Your task to perform on an android device: Show the shopping cart on ebay.com. Add "bose soundlink" to the cart on ebay.com, then select checkout. Image 0: 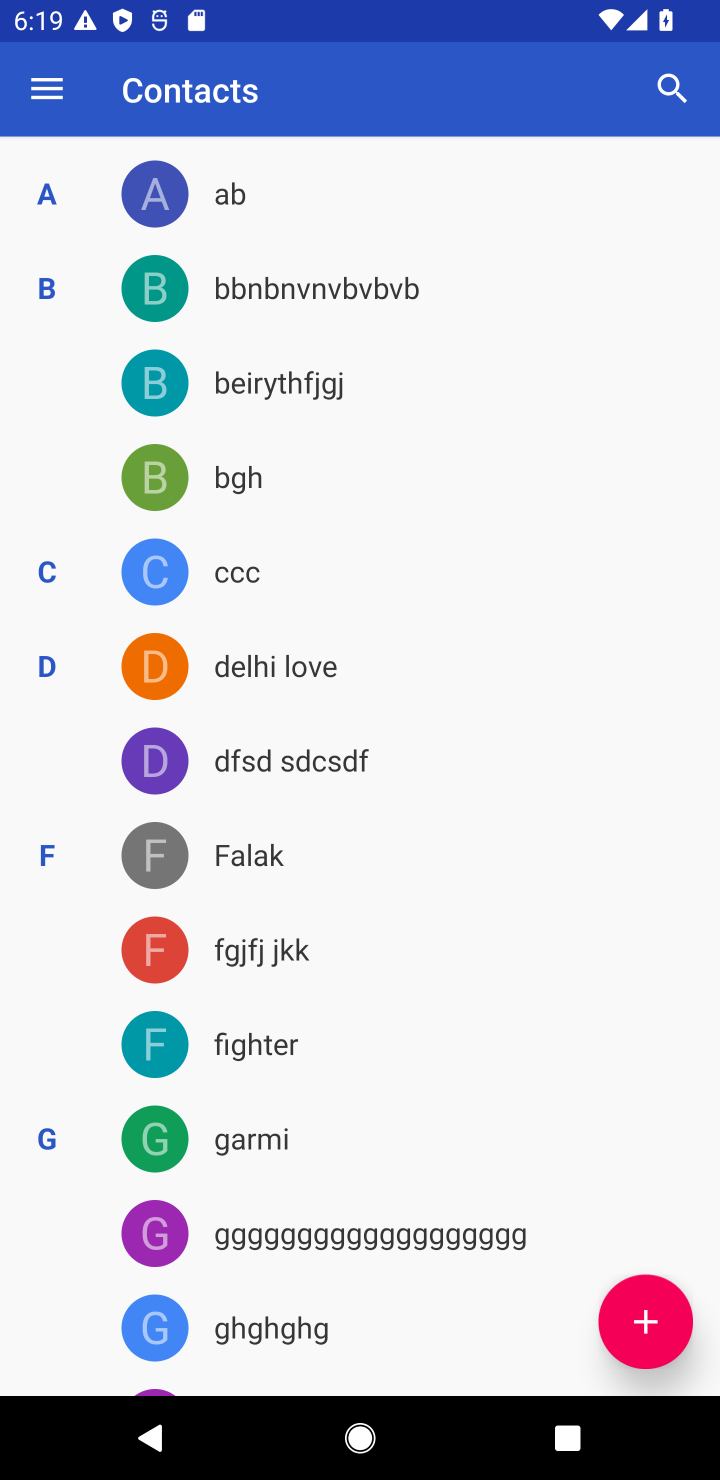
Step 0: press home button
Your task to perform on an android device: Show the shopping cart on ebay.com. Add "bose soundlink" to the cart on ebay.com, then select checkout. Image 1: 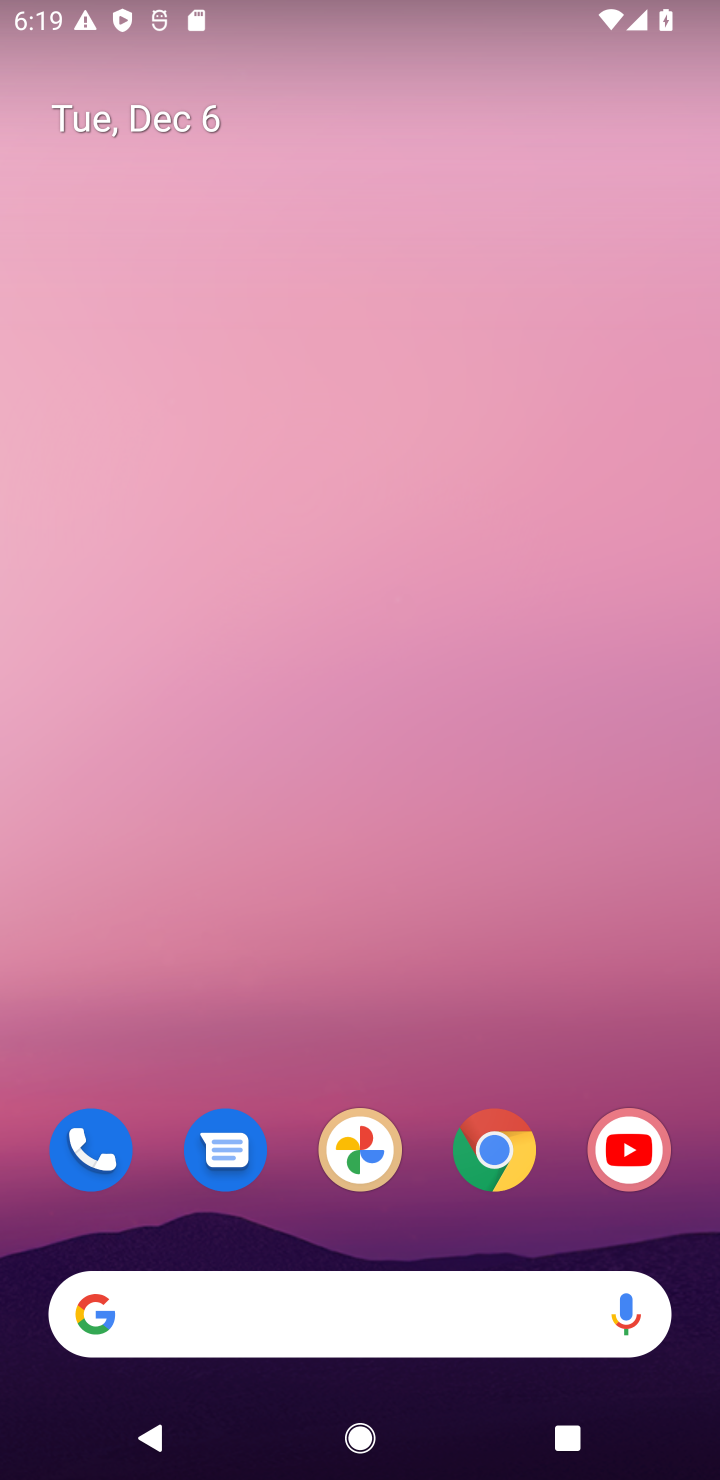
Step 1: click (502, 1154)
Your task to perform on an android device: Show the shopping cart on ebay.com. Add "bose soundlink" to the cart on ebay.com, then select checkout. Image 2: 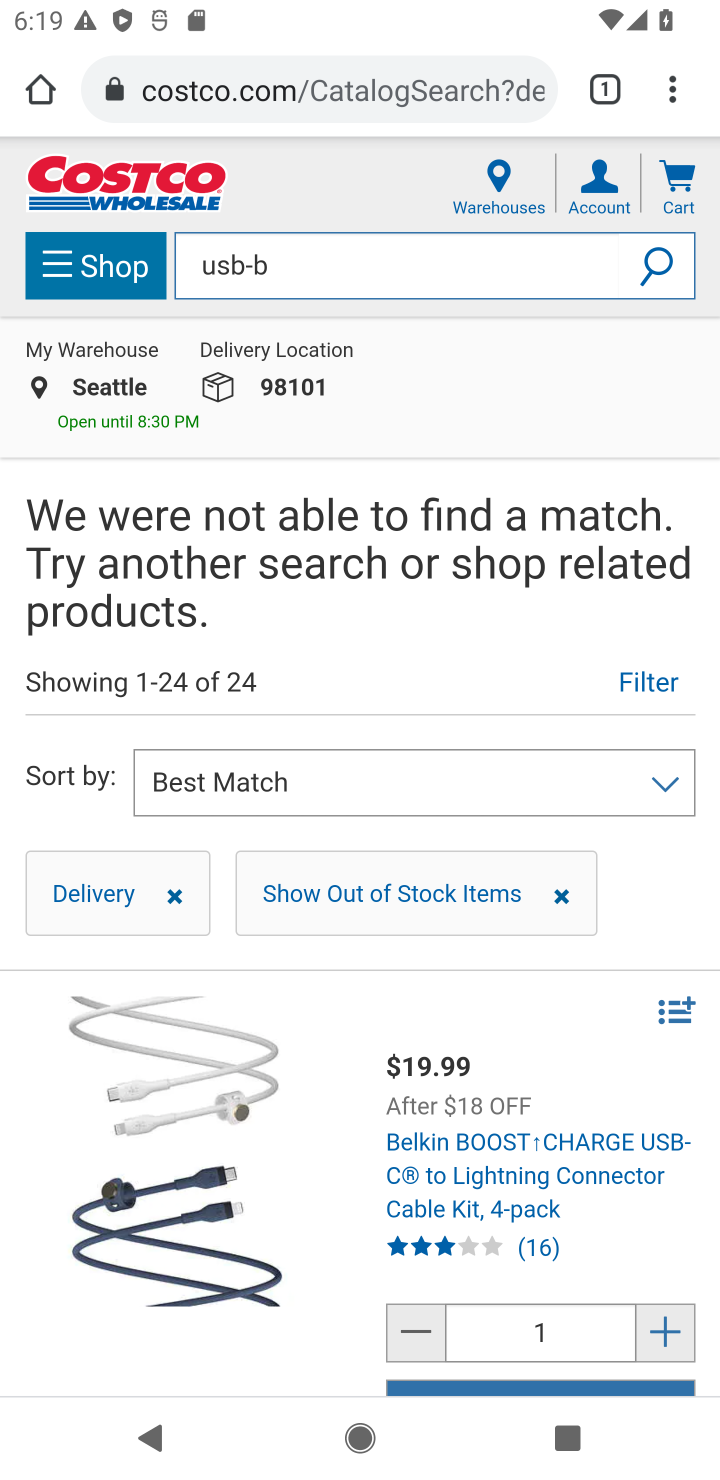
Step 2: click (246, 94)
Your task to perform on an android device: Show the shopping cart on ebay.com. Add "bose soundlink" to the cart on ebay.com, then select checkout. Image 3: 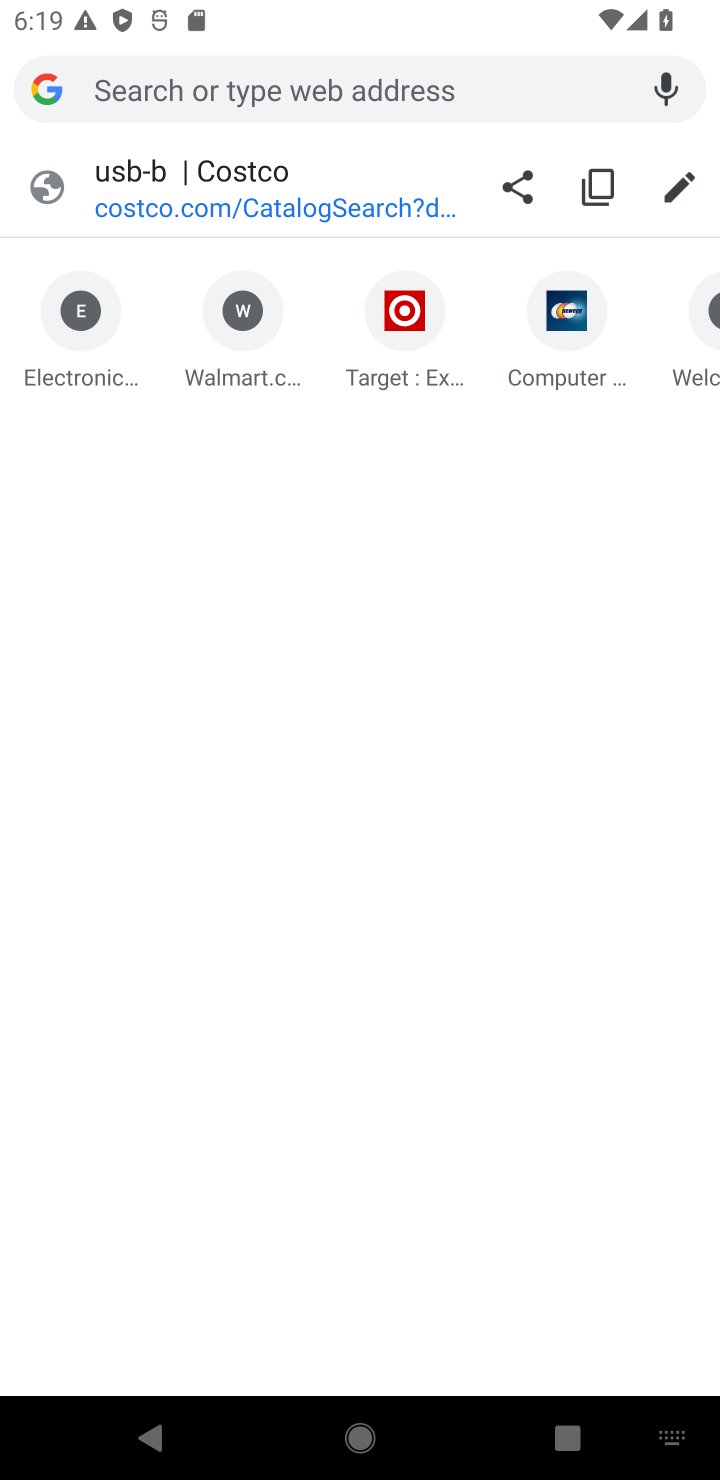
Step 3: type "ebay.com"
Your task to perform on an android device: Show the shopping cart on ebay.com. Add "bose soundlink" to the cart on ebay.com, then select checkout. Image 4: 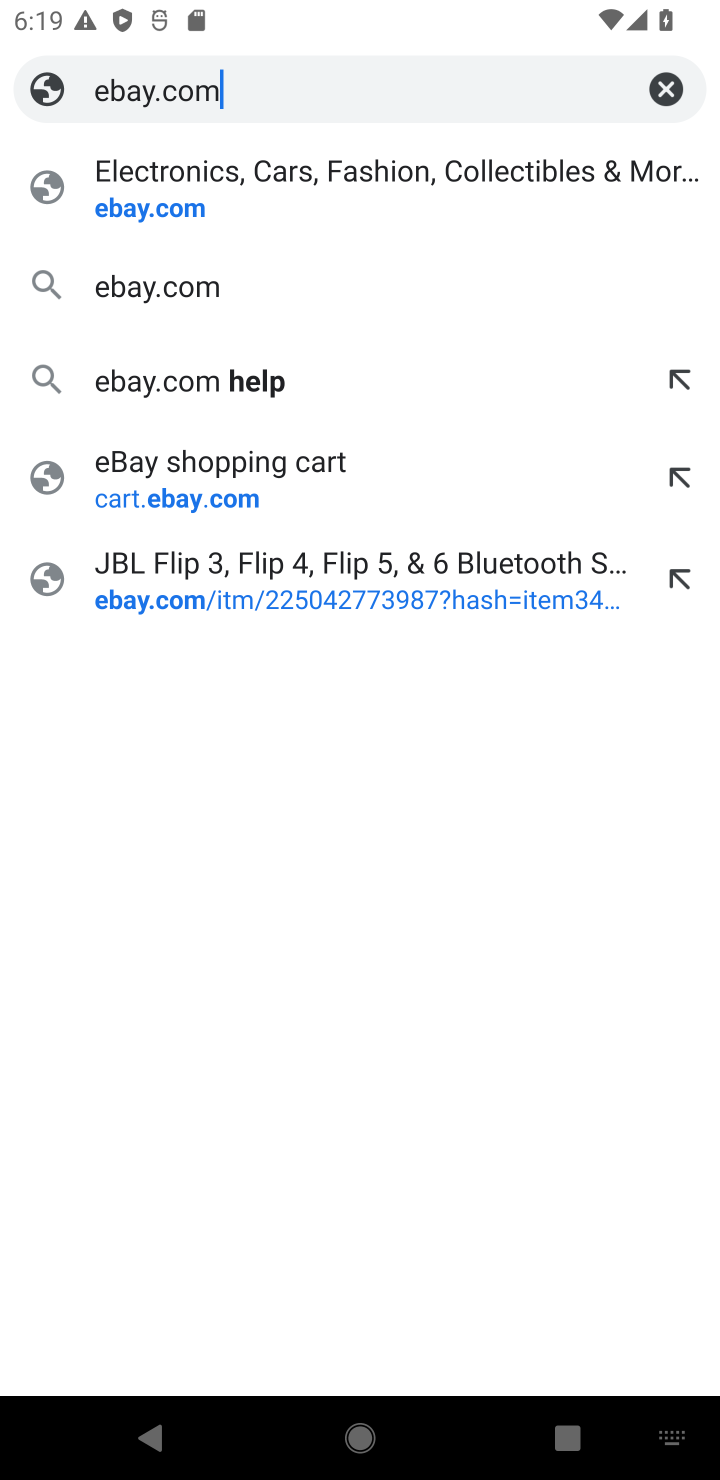
Step 4: click (129, 212)
Your task to perform on an android device: Show the shopping cart on ebay.com. Add "bose soundlink" to the cart on ebay.com, then select checkout. Image 5: 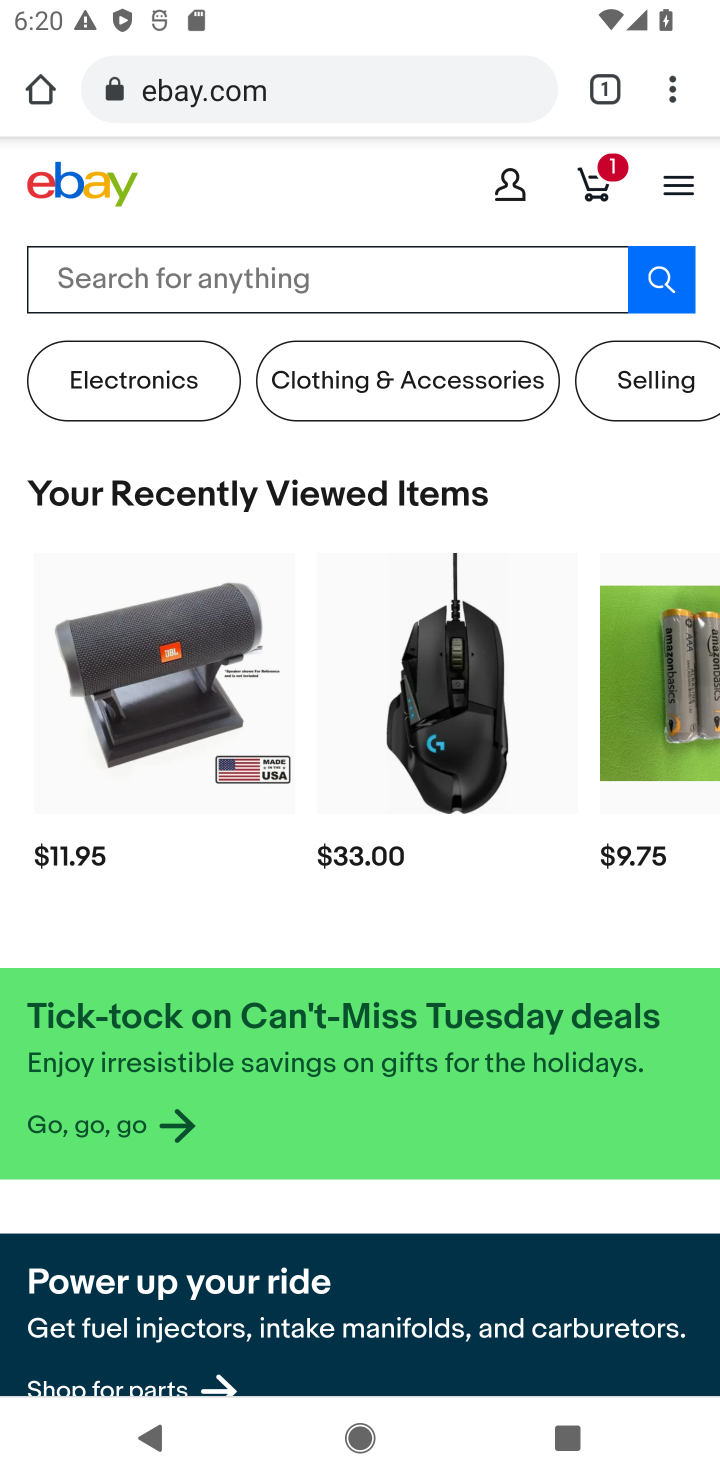
Step 5: click (594, 189)
Your task to perform on an android device: Show the shopping cart on ebay.com. Add "bose soundlink" to the cart on ebay.com, then select checkout. Image 6: 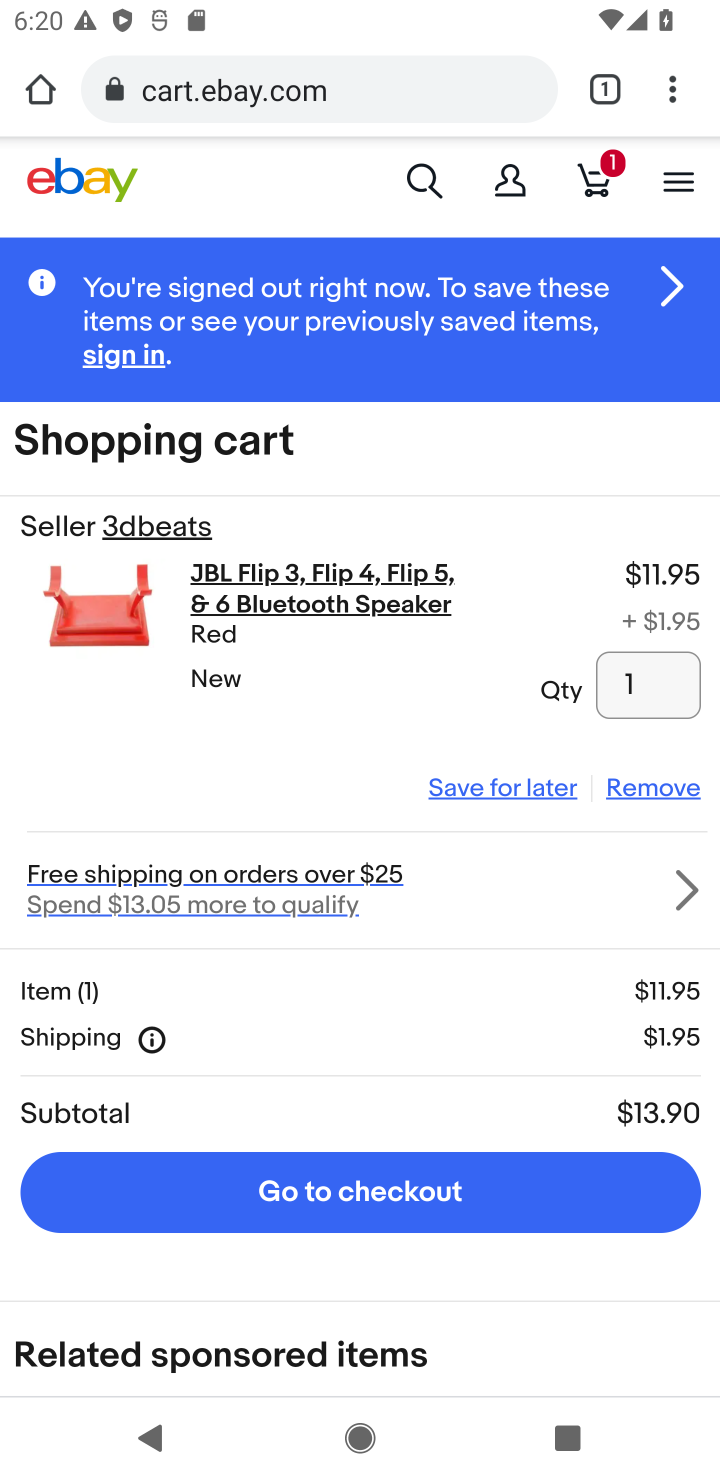
Step 6: click (419, 177)
Your task to perform on an android device: Show the shopping cart on ebay.com. Add "bose soundlink" to the cart on ebay.com, then select checkout. Image 7: 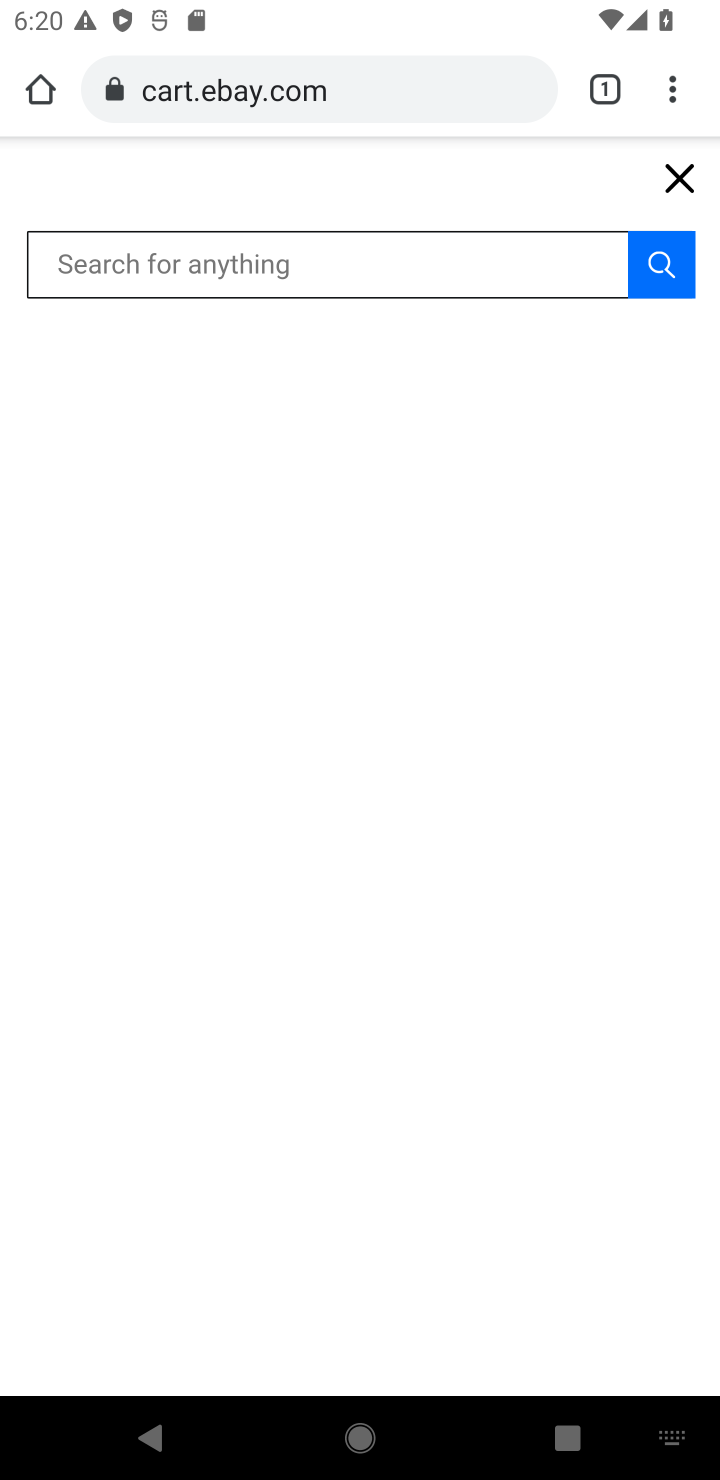
Step 7: type "bose soundlink"
Your task to perform on an android device: Show the shopping cart on ebay.com. Add "bose soundlink" to the cart on ebay.com, then select checkout. Image 8: 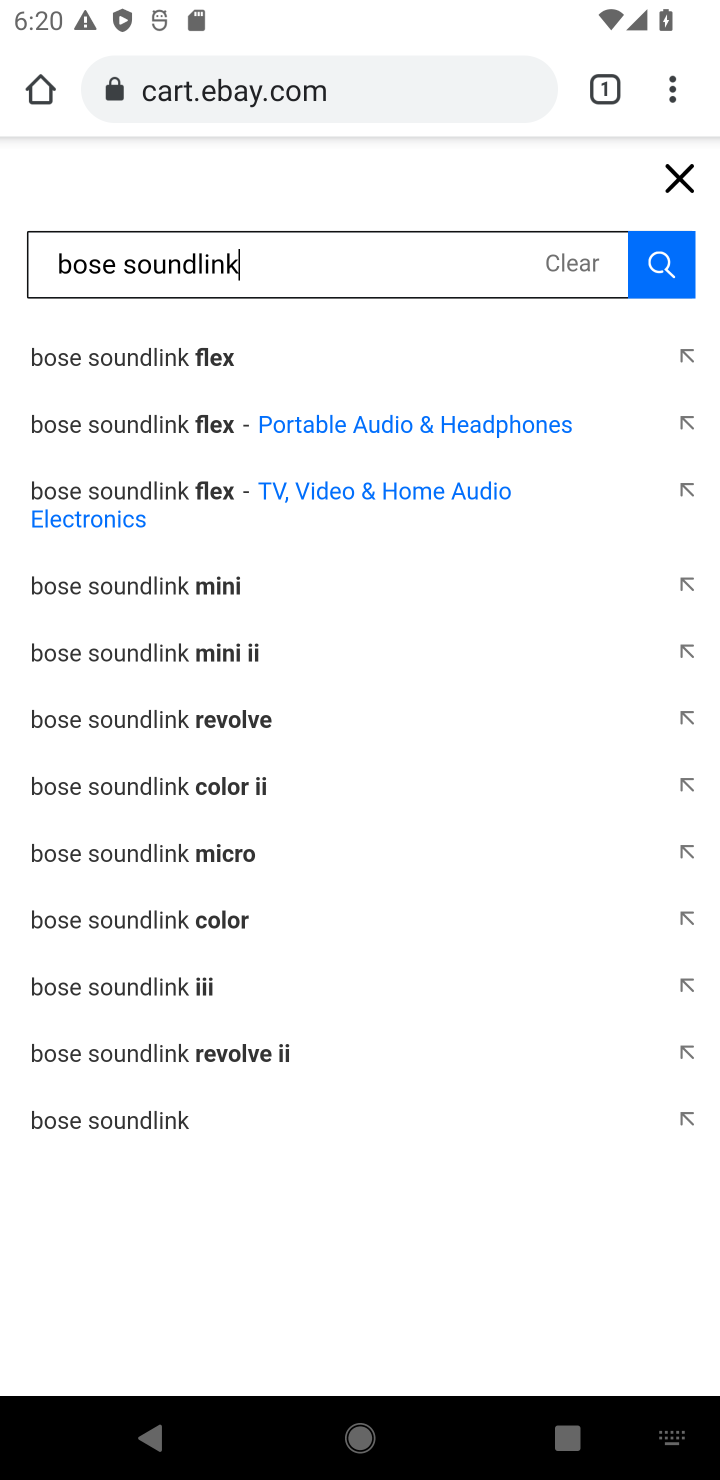
Step 8: click (646, 265)
Your task to perform on an android device: Show the shopping cart on ebay.com. Add "bose soundlink" to the cart on ebay.com, then select checkout. Image 9: 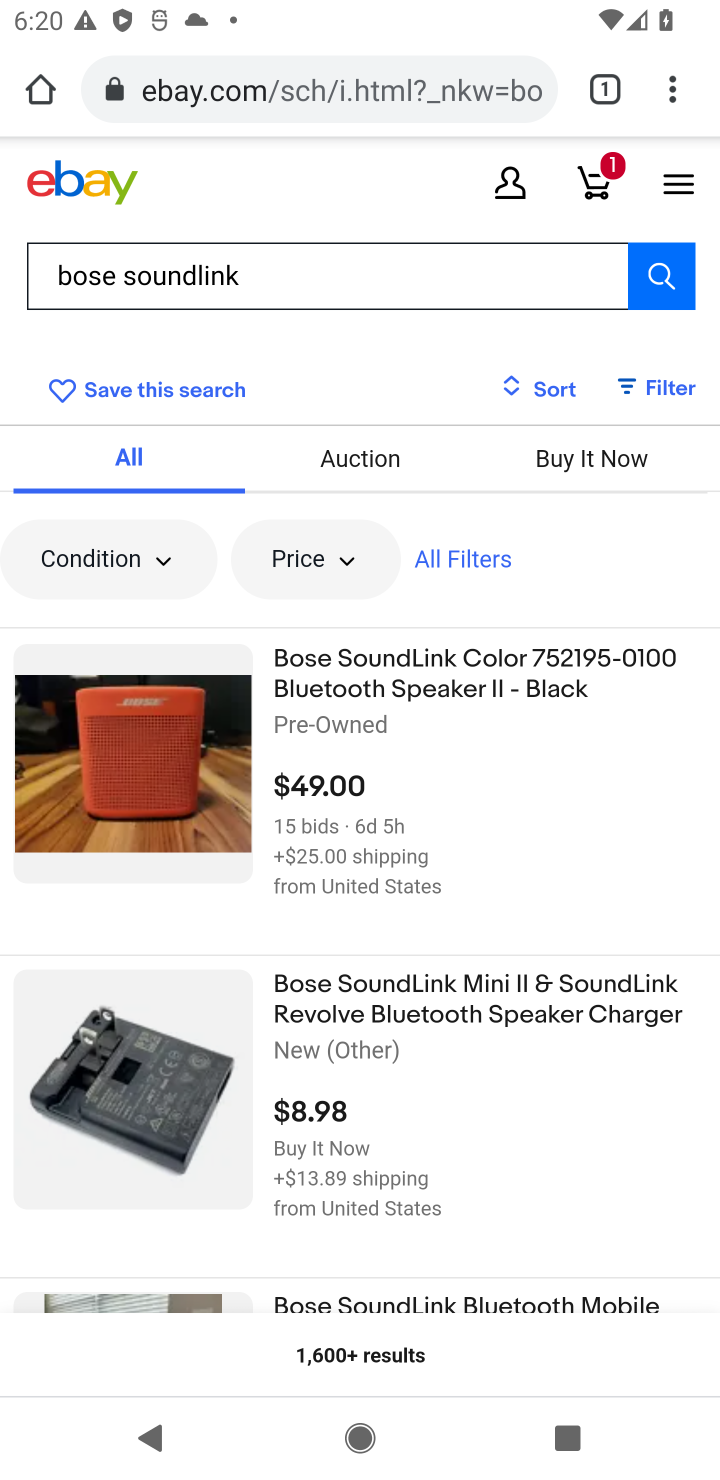
Step 9: click (326, 1018)
Your task to perform on an android device: Show the shopping cart on ebay.com. Add "bose soundlink" to the cart on ebay.com, then select checkout. Image 10: 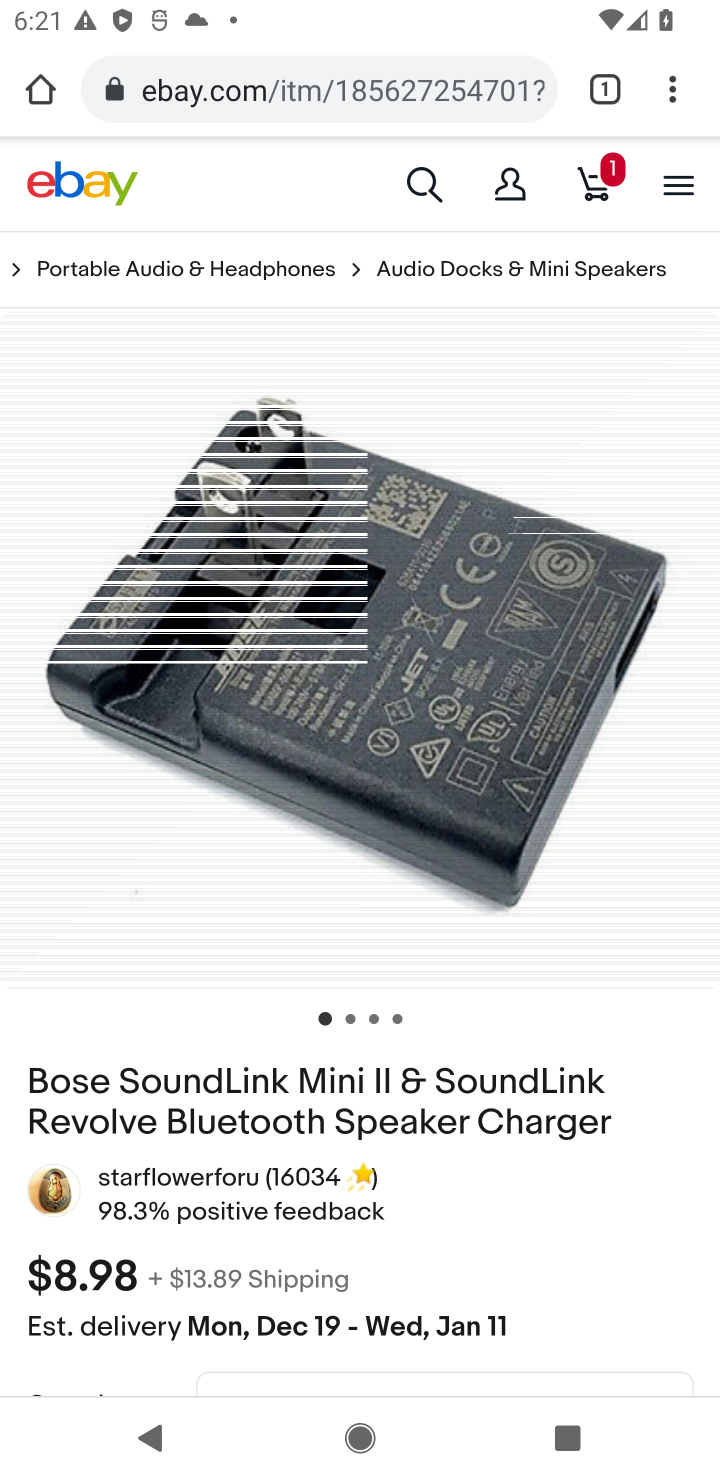
Step 10: drag from (336, 847) to (290, 542)
Your task to perform on an android device: Show the shopping cart on ebay.com. Add "bose soundlink" to the cart on ebay.com, then select checkout. Image 11: 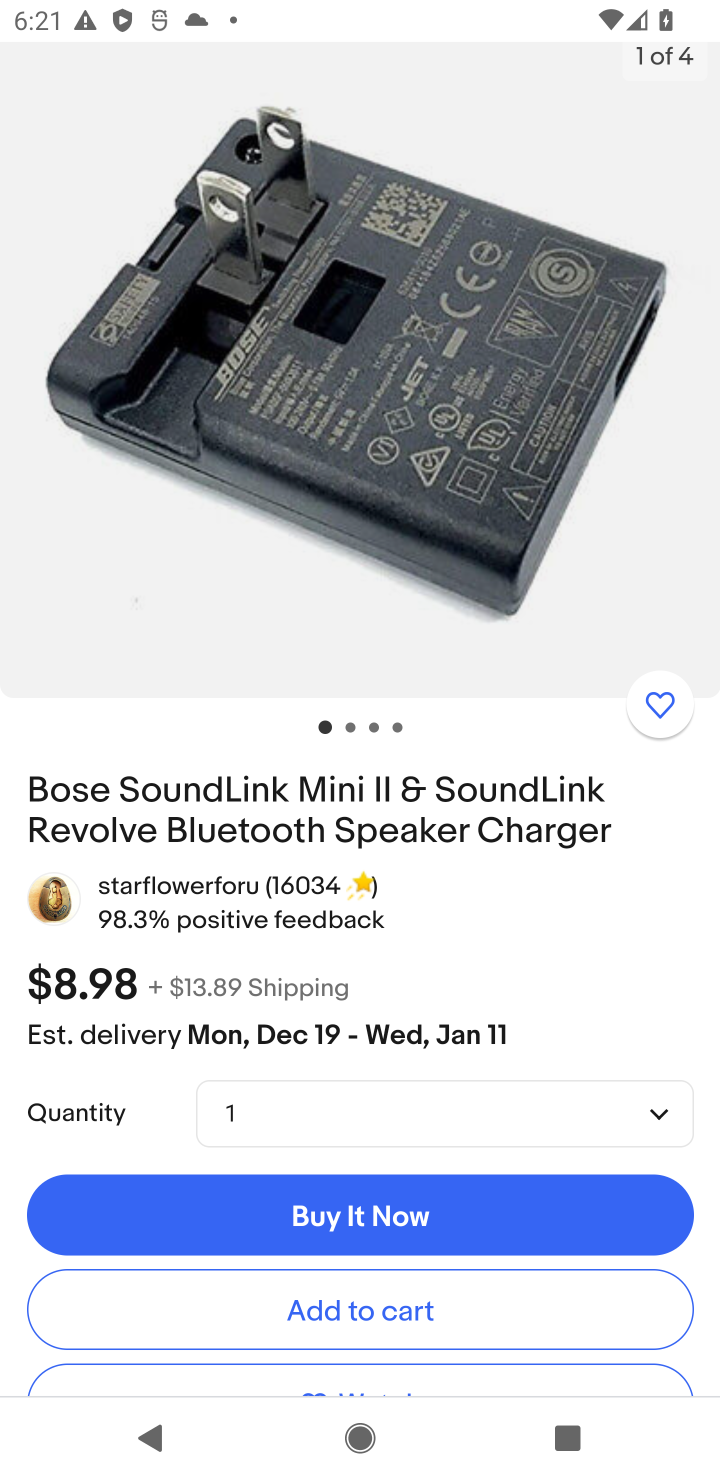
Step 11: click (374, 1298)
Your task to perform on an android device: Show the shopping cart on ebay.com. Add "bose soundlink" to the cart on ebay.com, then select checkout. Image 12: 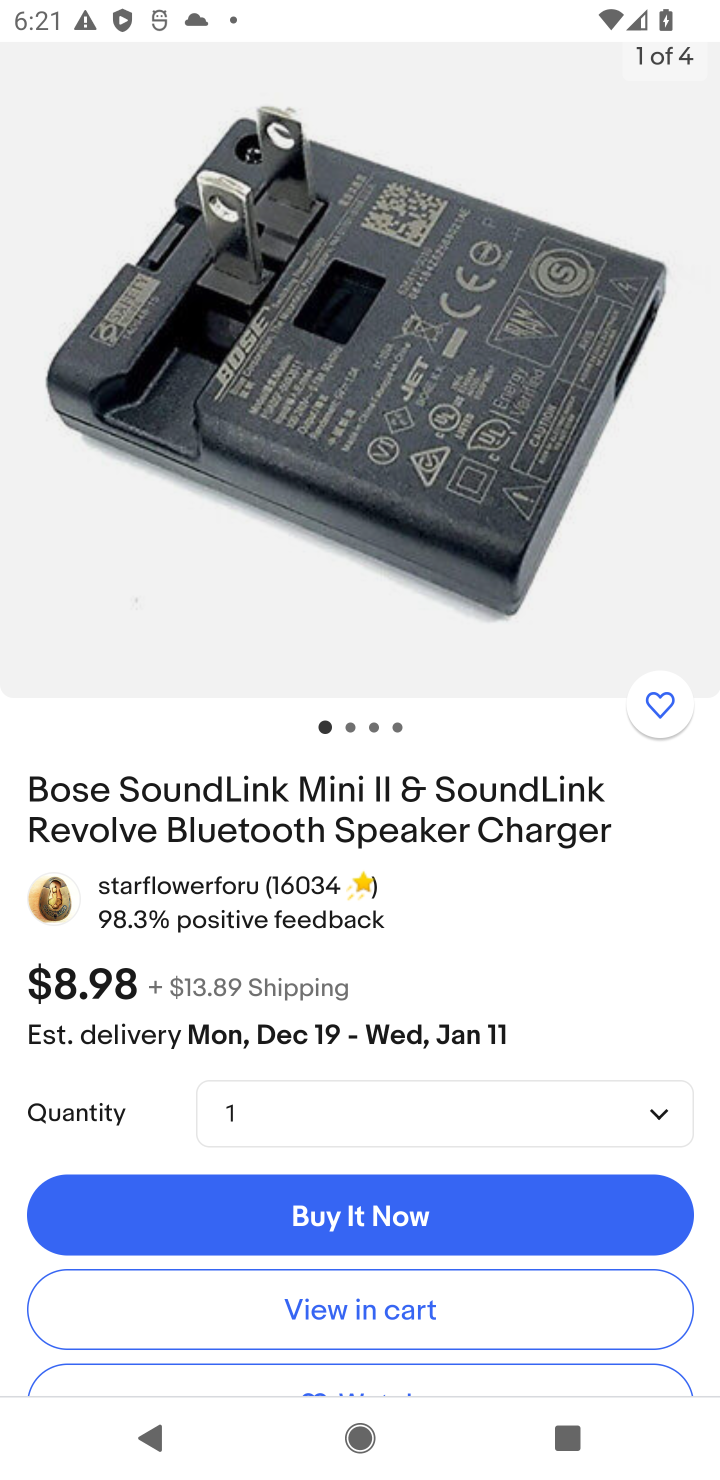
Step 12: click (374, 1298)
Your task to perform on an android device: Show the shopping cart on ebay.com. Add "bose soundlink" to the cart on ebay.com, then select checkout. Image 13: 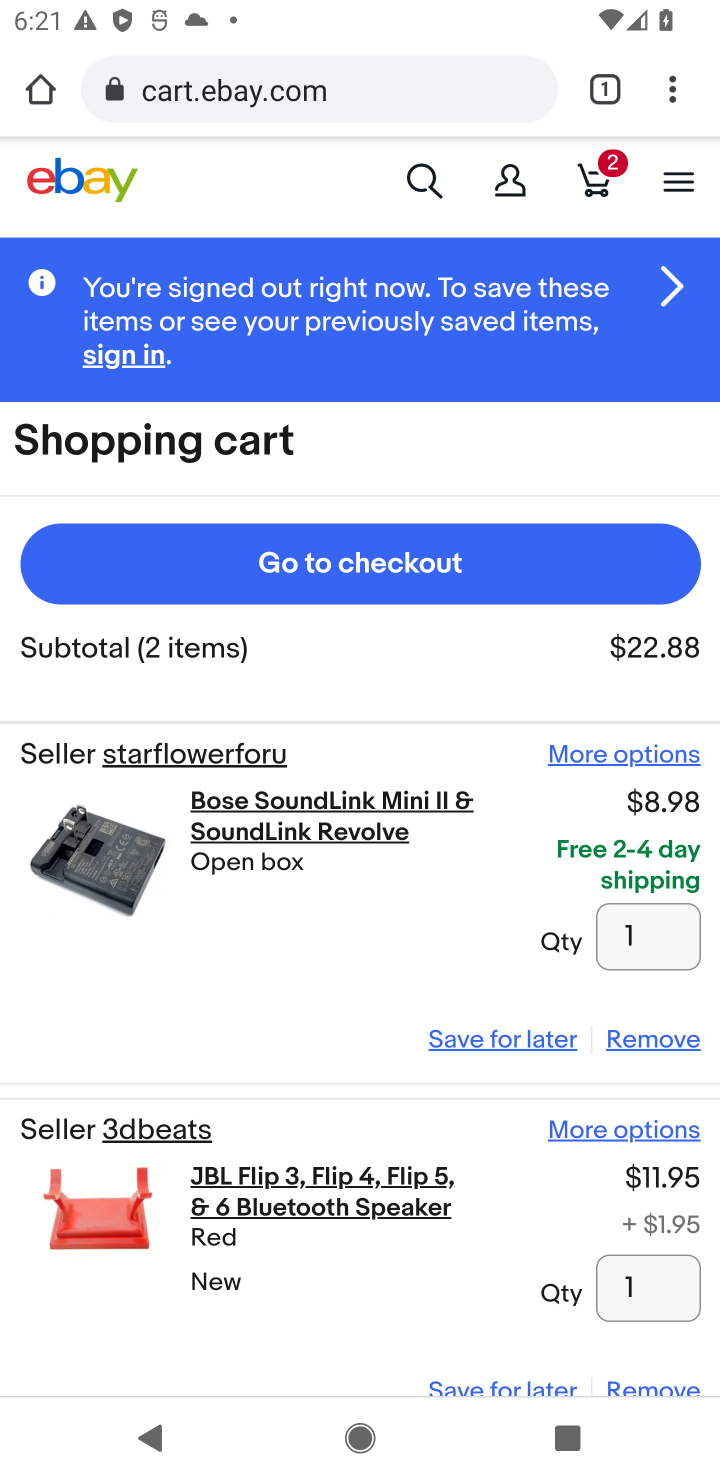
Step 13: click (310, 572)
Your task to perform on an android device: Show the shopping cart on ebay.com. Add "bose soundlink" to the cart on ebay.com, then select checkout. Image 14: 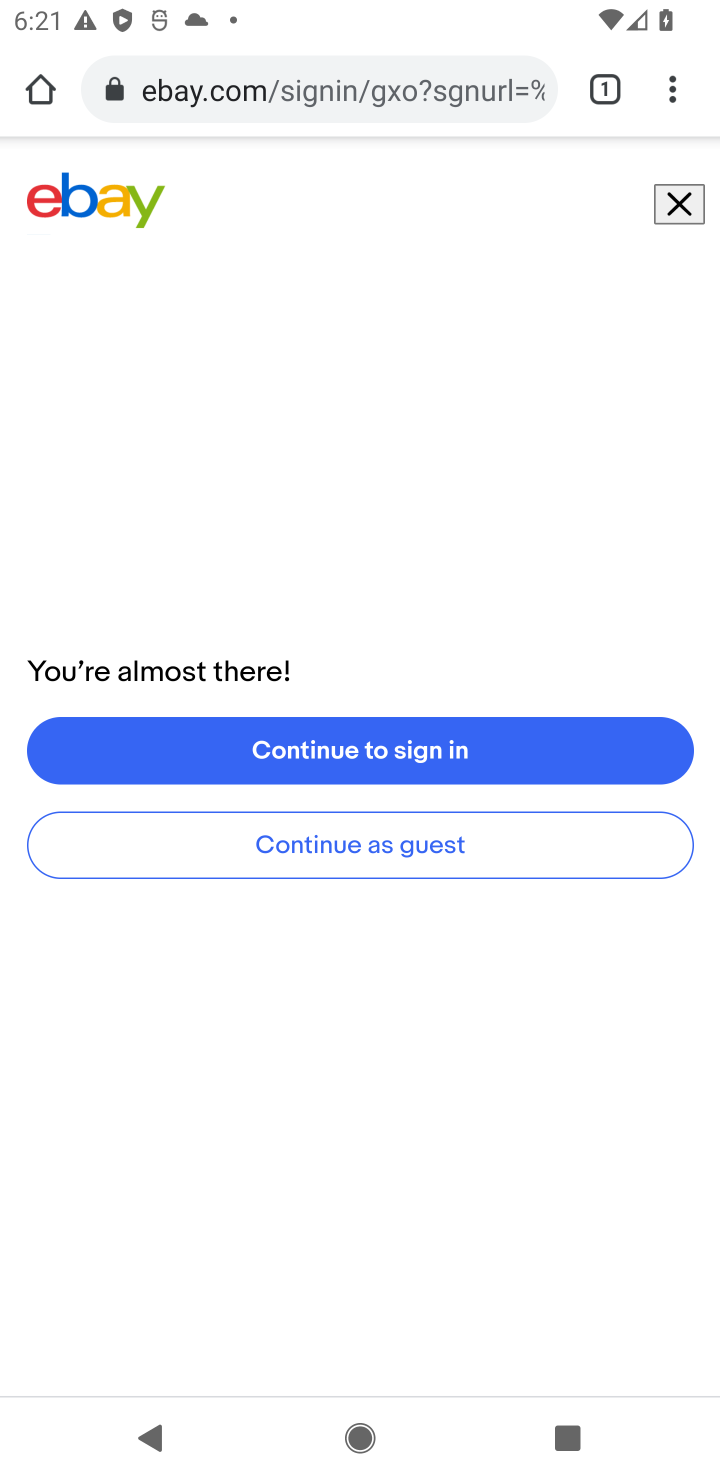
Step 14: task complete